Your task to perform on an android device: see creations saved in the google photos Image 0: 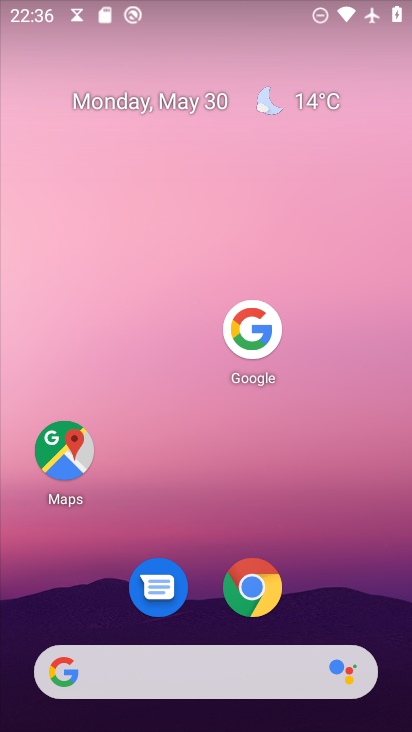
Step 0: press home button
Your task to perform on an android device: see creations saved in the google photos Image 1: 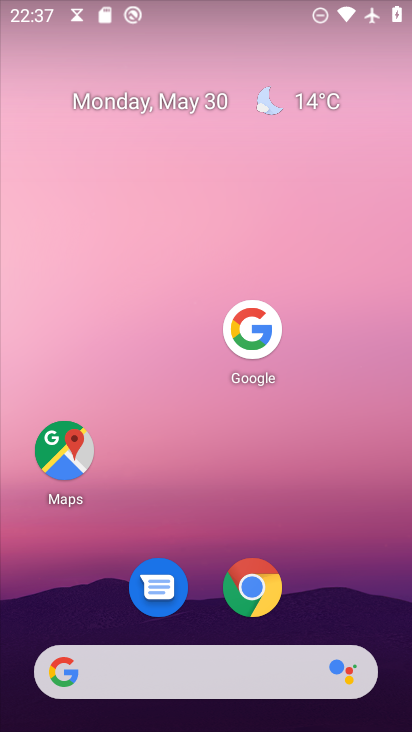
Step 1: drag from (245, 690) to (348, 257)
Your task to perform on an android device: see creations saved in the google photos Image 2: 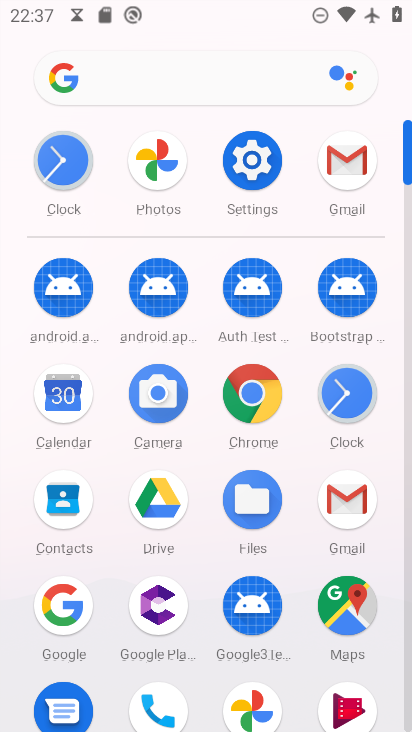
Step 2: click (256, 697)
Your task to perform on an android device: see creations saved in the google photos Image 3: 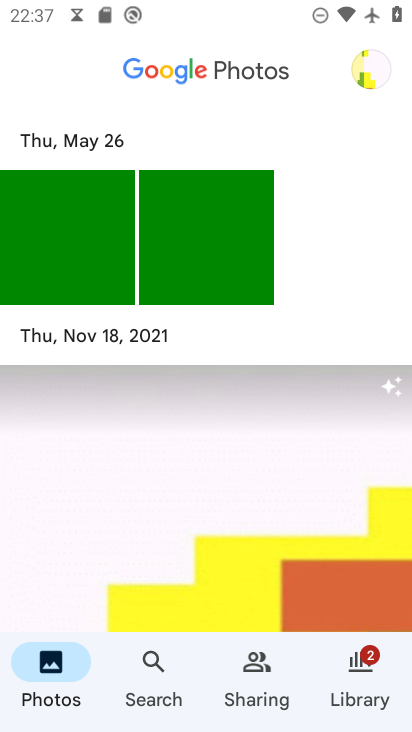
Step 3: click (146, 695)
Your task to perform on an android device: see creations saved in the google photos Image 4: 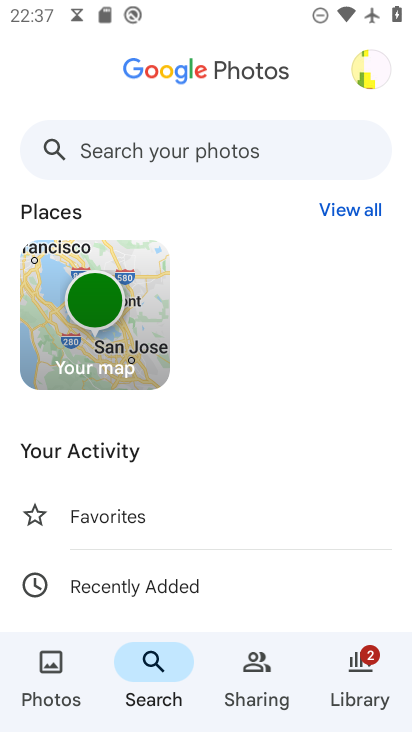
Step 4: drag from (182, 605) to (286, 154)
Your task to perform on an android device: see creations saved in the google photos Image 5: 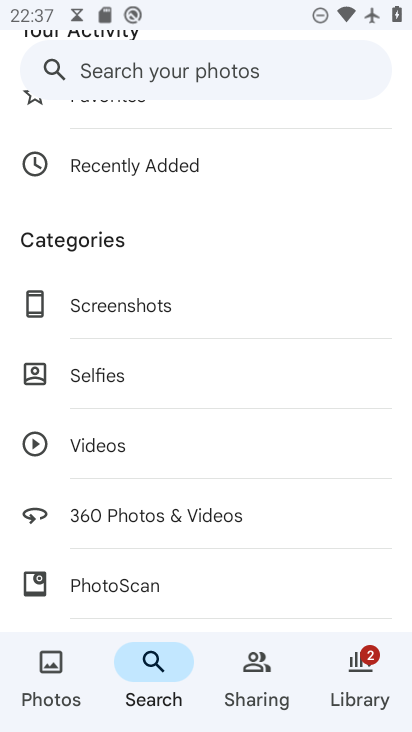
Step 5: drag from (214, 603) to (287, 279)
Your task to perform on an android device: see creations saved in the google photos Image 6: 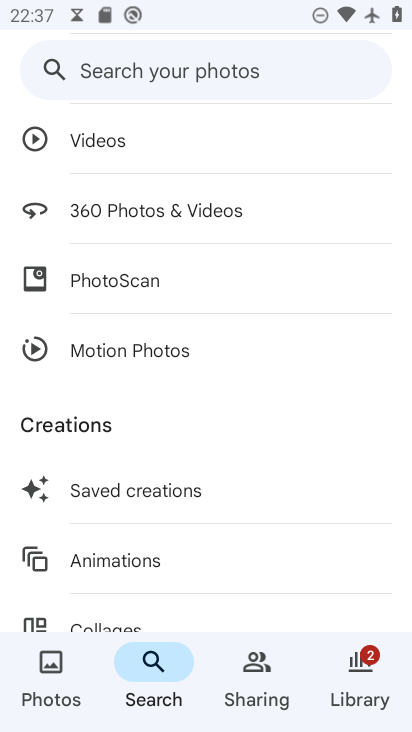
Step 6: click (144, 488)
Your task to perform on an android device: see creations saved in the google photos Image 7: 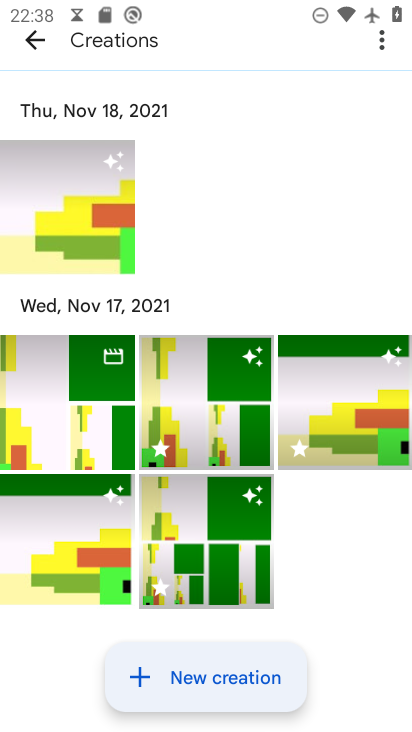
Step 7: task complete